Your task to perform on an android device: Go to calendar. Show me events next week Image 0: 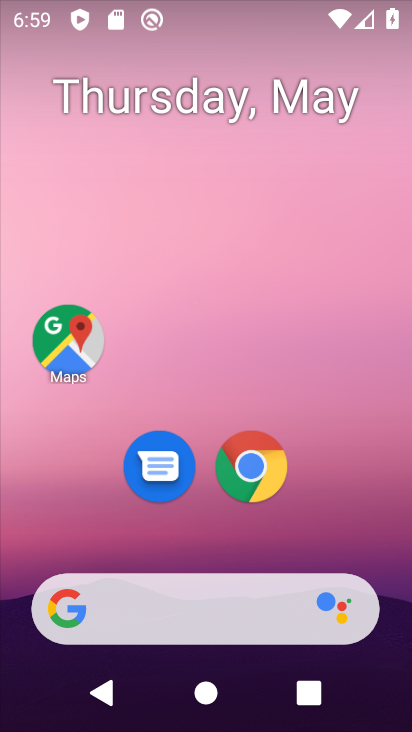
Step 0: drag from (339, 517) to (282, 40)
Your task to perform on an android device: Go to calendar. Show me events next week Image 1: 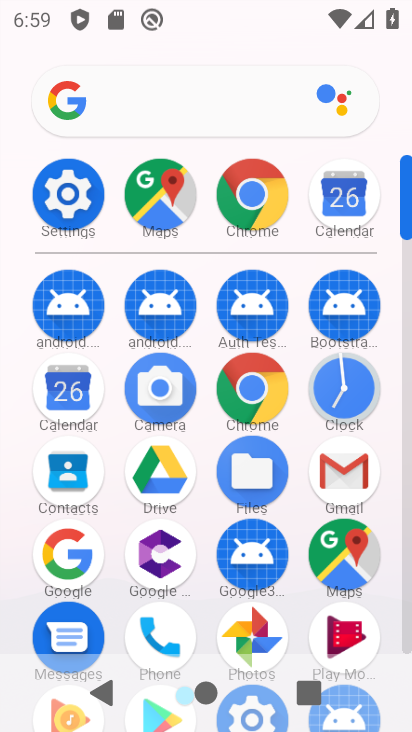
Step 1: click (64, 373)
Your task to perform on an android device: Go to calendar. Show me events next week Image 2: 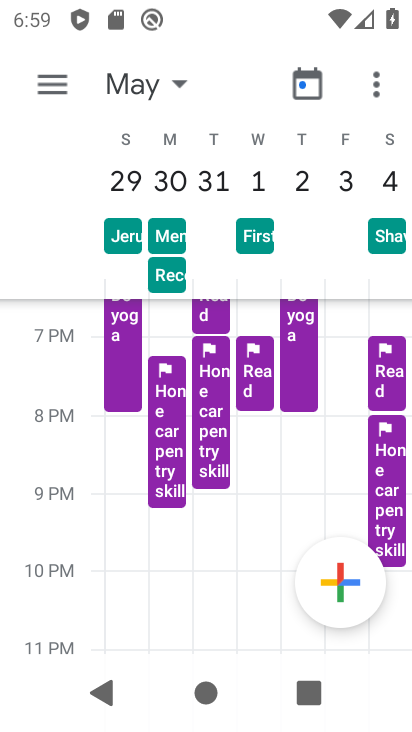
Step 2: task complete